Your task to perform on an android device: Go to privacy settings Image 0: 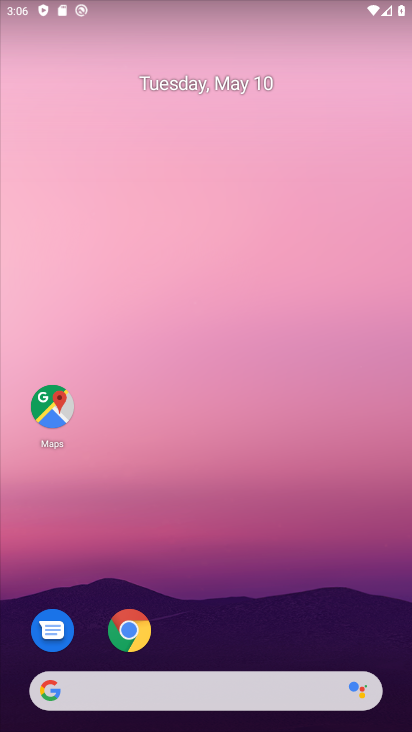
Step 0: drag from (236, 619) to (212, 25)
Your task to perform on an android device: Go to privacy settings Image 1: 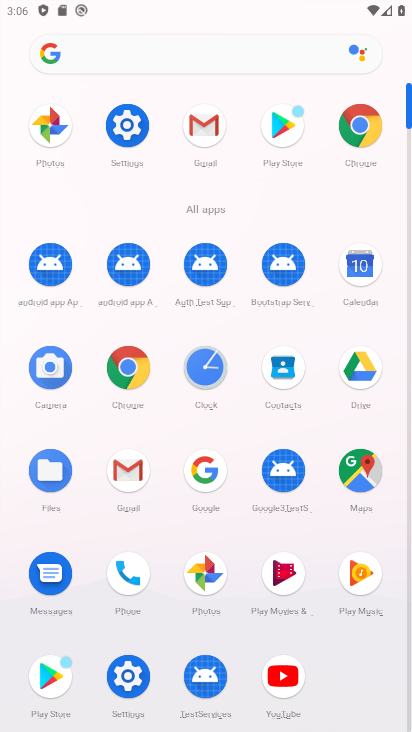
Step 1: click (126, 133)
Your task to perform on an android device: Go to privacy settings Image 2: 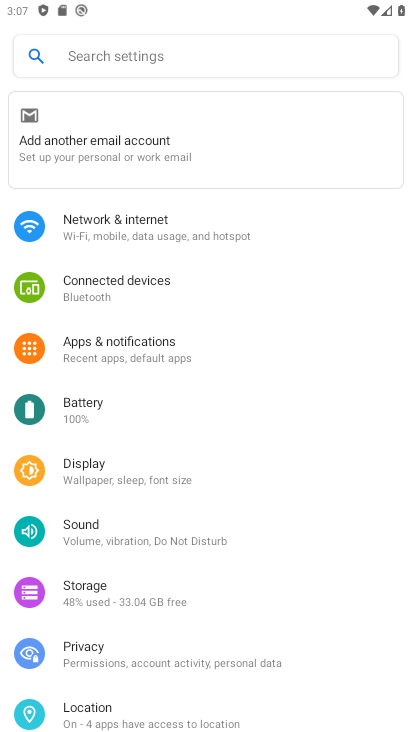
Step 2: click (91, 647)
Your task to perform on an android device: Go to privacy settings Image 3: 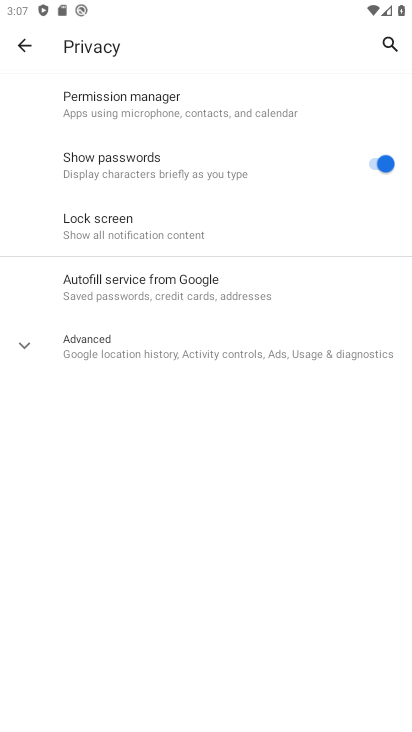
Step 3: task complete